Your task to perform on an android device: set the timer Image 0: 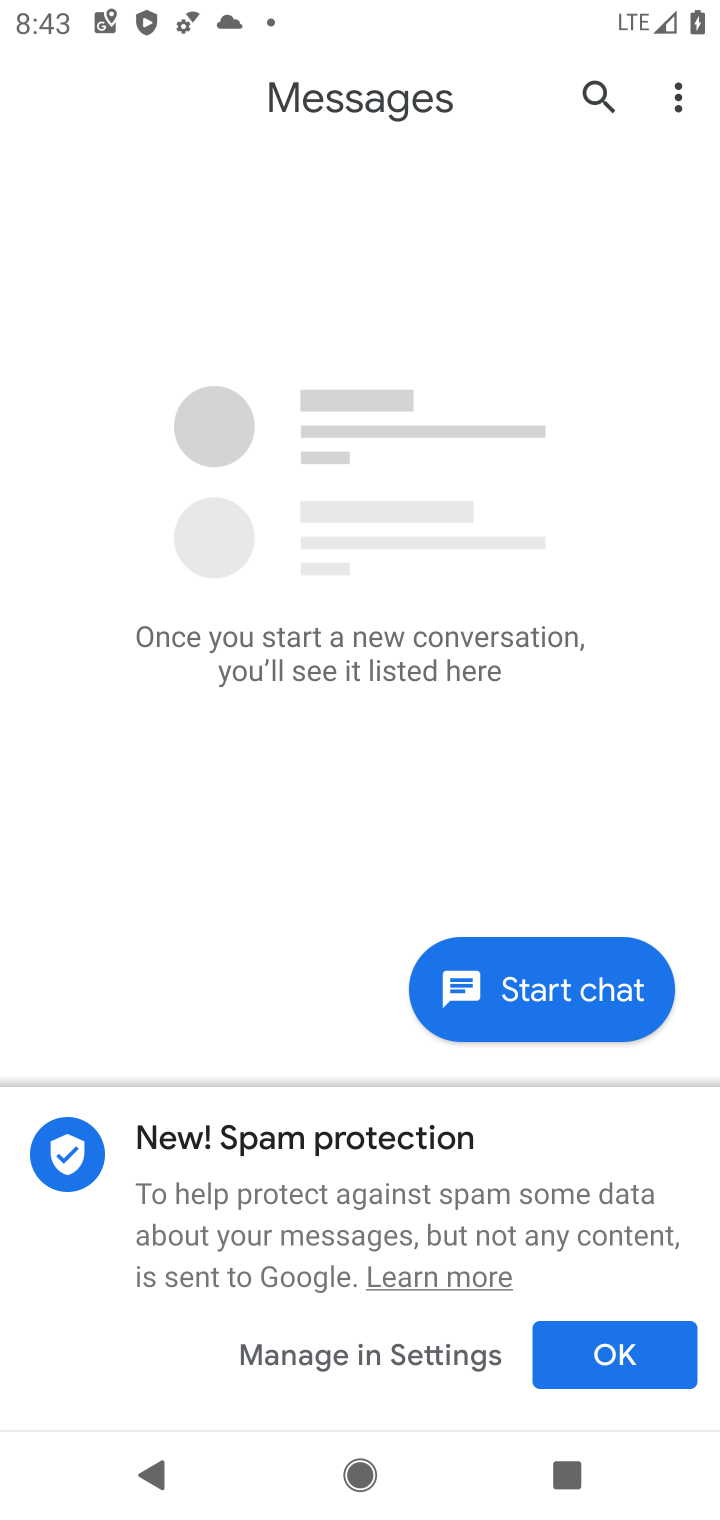
Step 0: press home button
Your task to perform on an android device: set the timer Image 1: 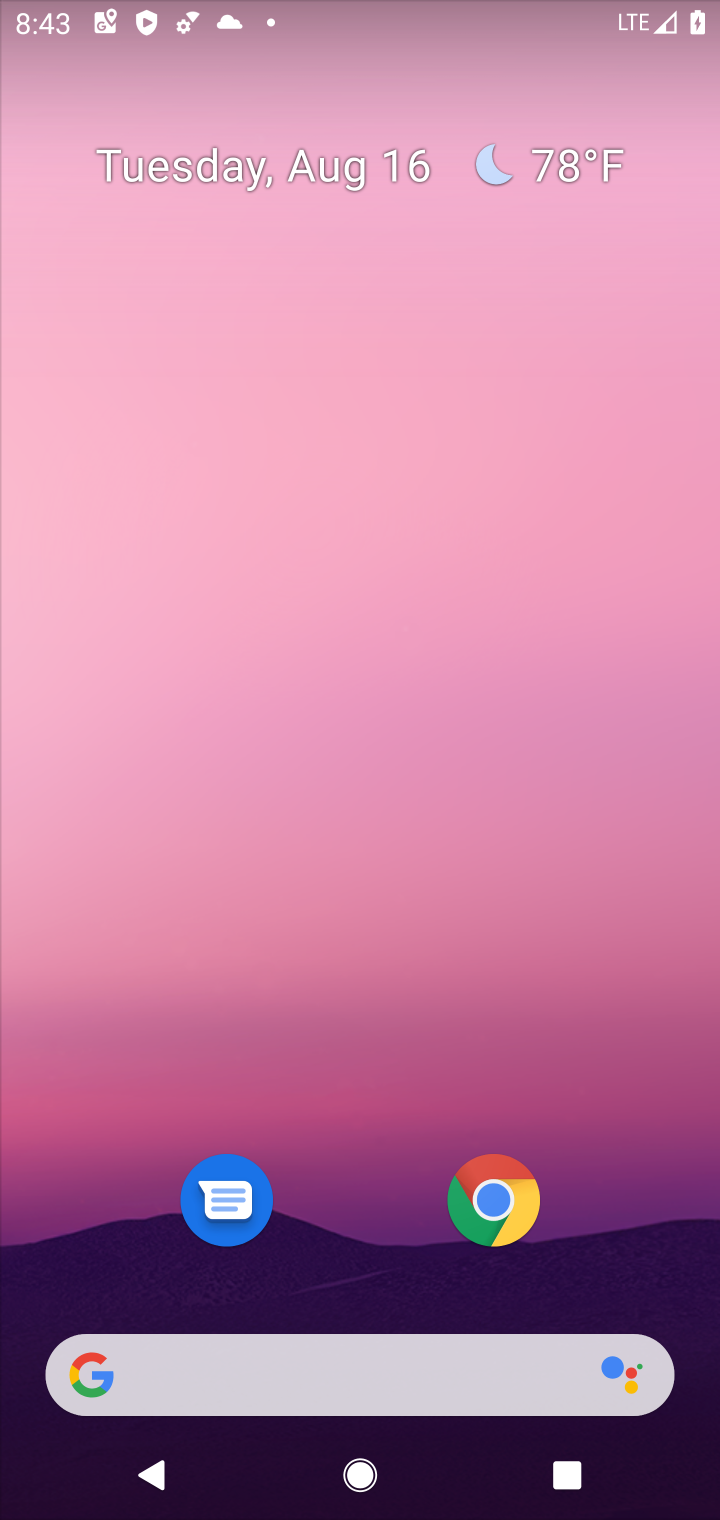
Step 1: drag from (671, 1257) to (562, 468)
Your task to perform on an android device: set the timer Image 2: 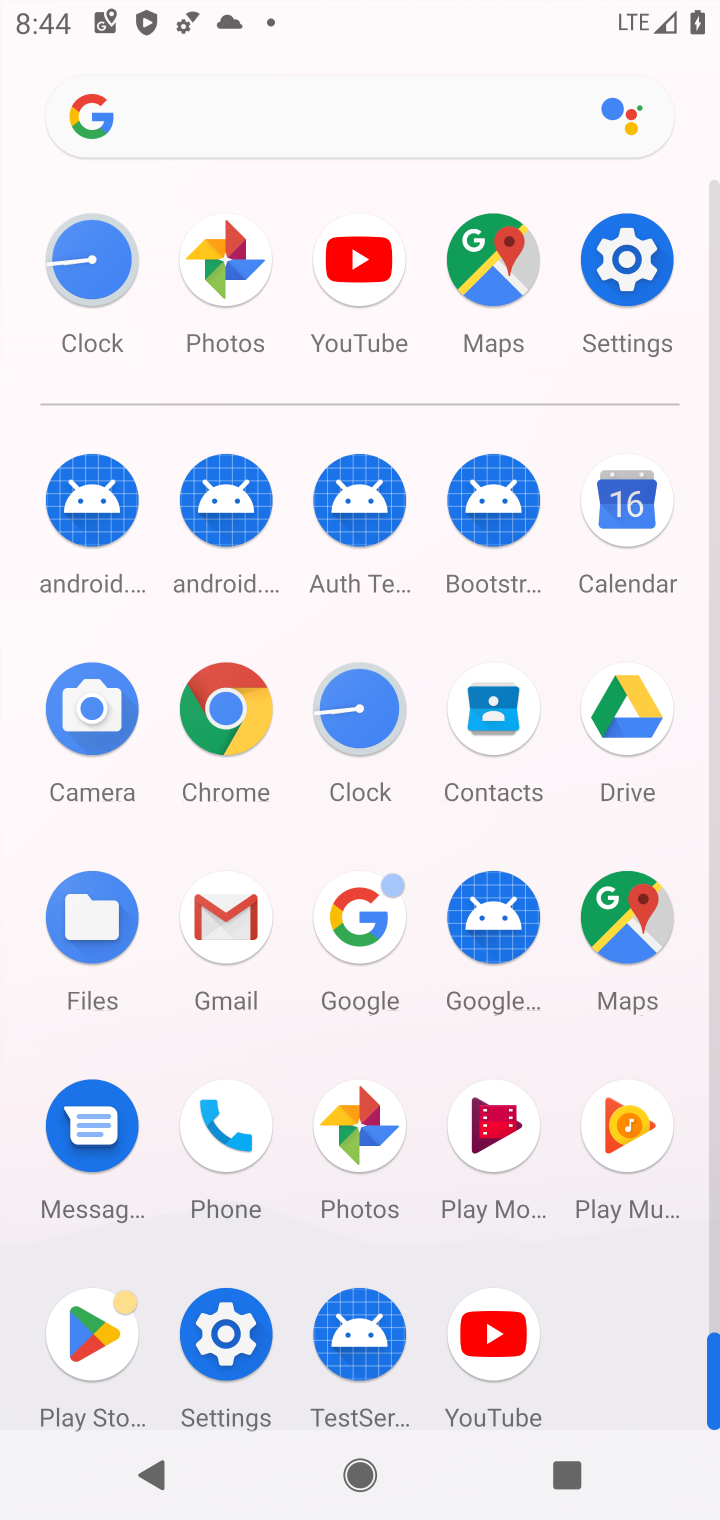
Step 2: click (359, 703)
Your task to perform on an android device: set the timer Image 3: 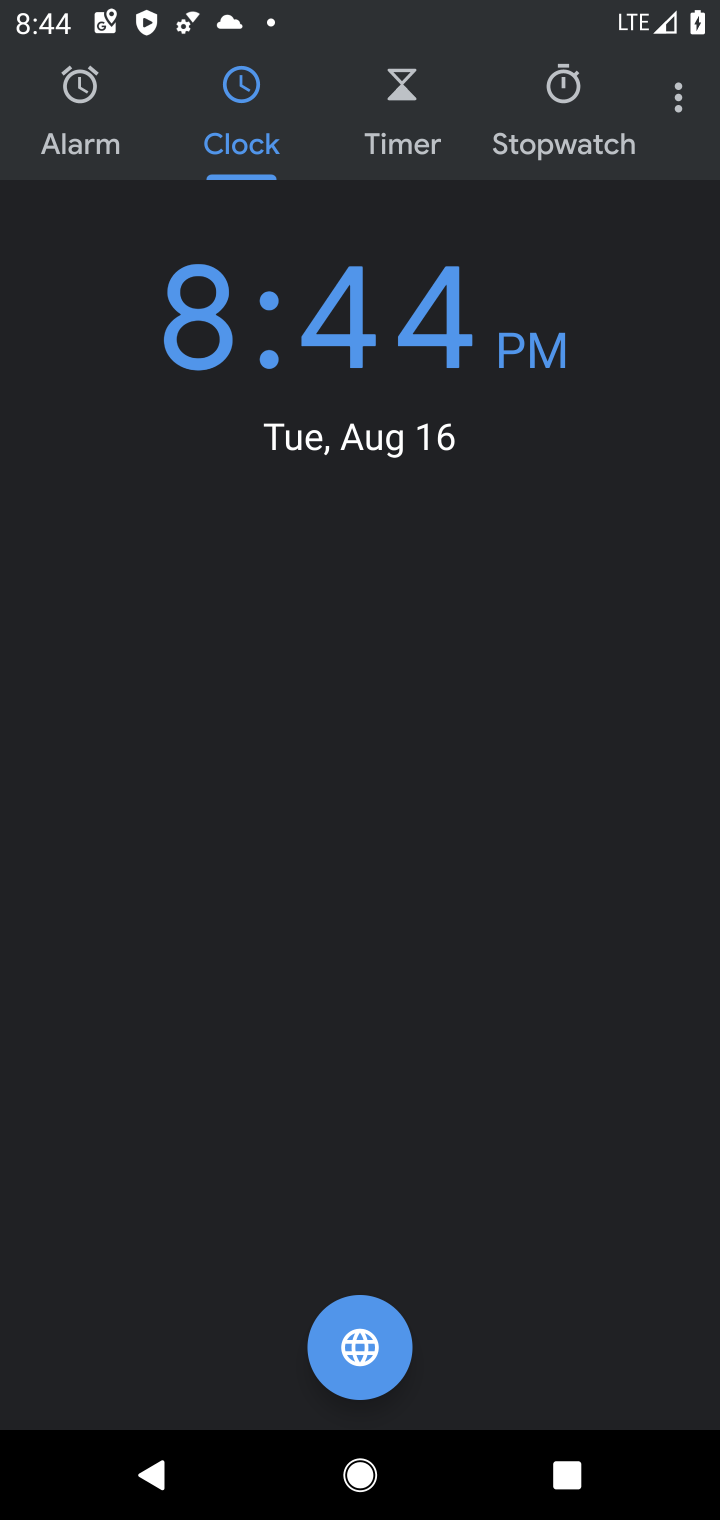
Step 3: click (417, 125)
Your task to perform on an android device: set the timer Image 4: 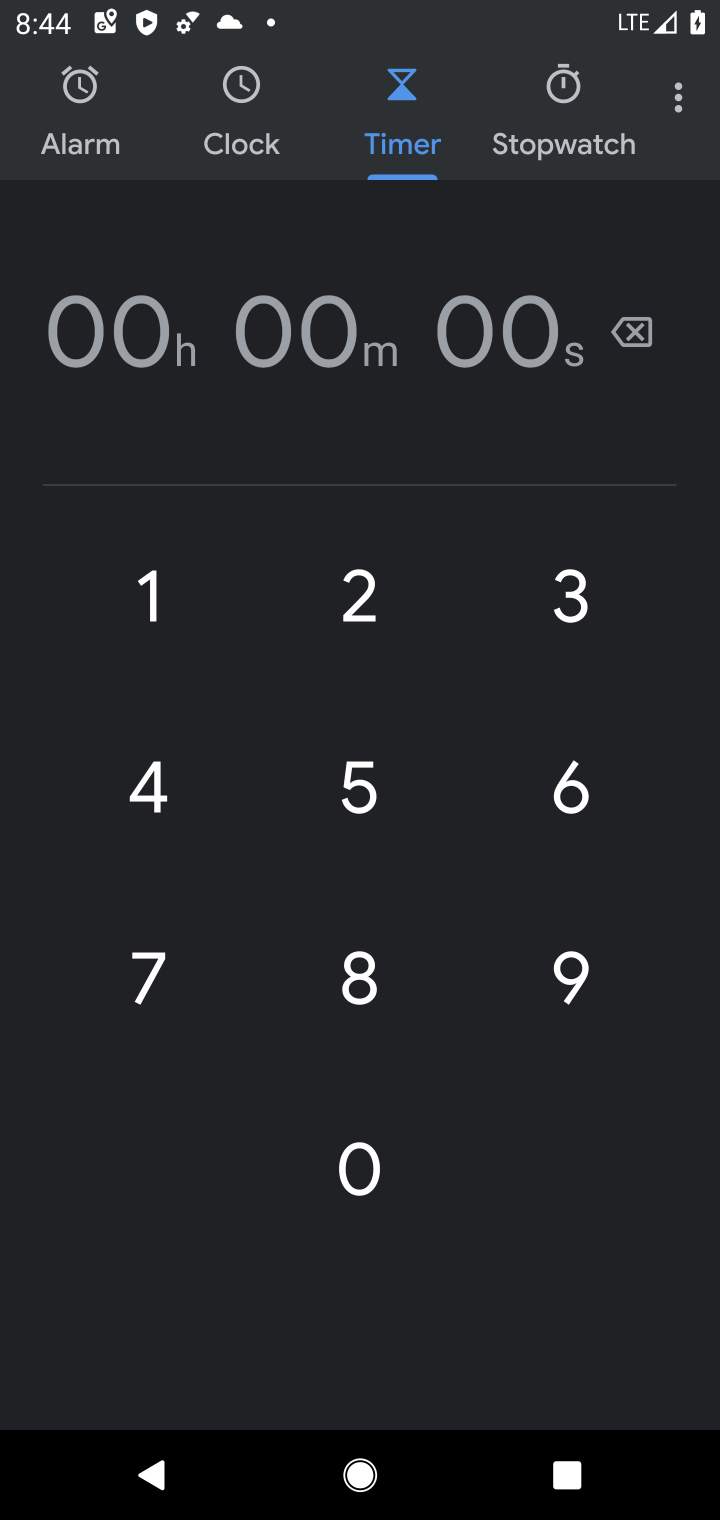
Step 4: click (138, 574)
Your task to perform on an android device: set the timer Image 5: 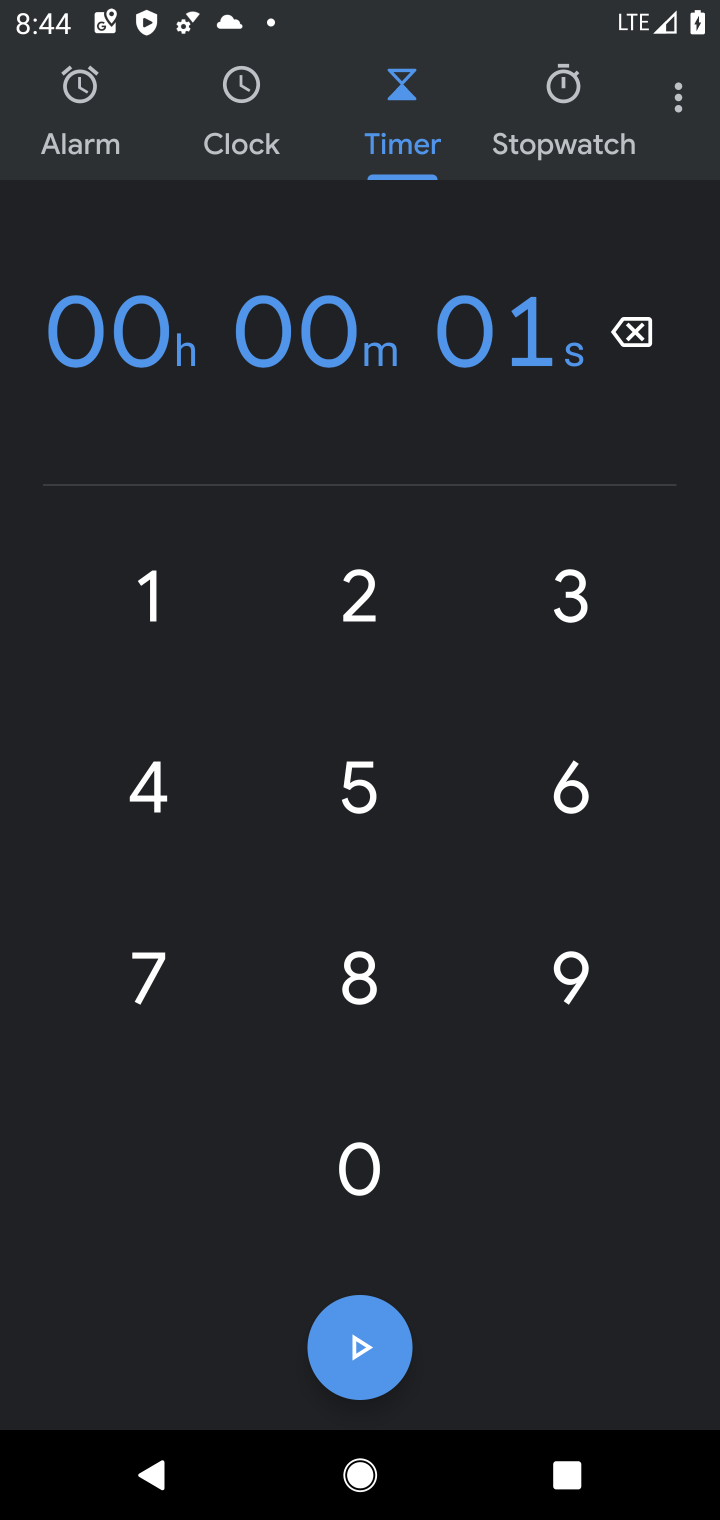
Step 5: click (569, 605)
Your task to perform on an android device: set the timer Image 6: 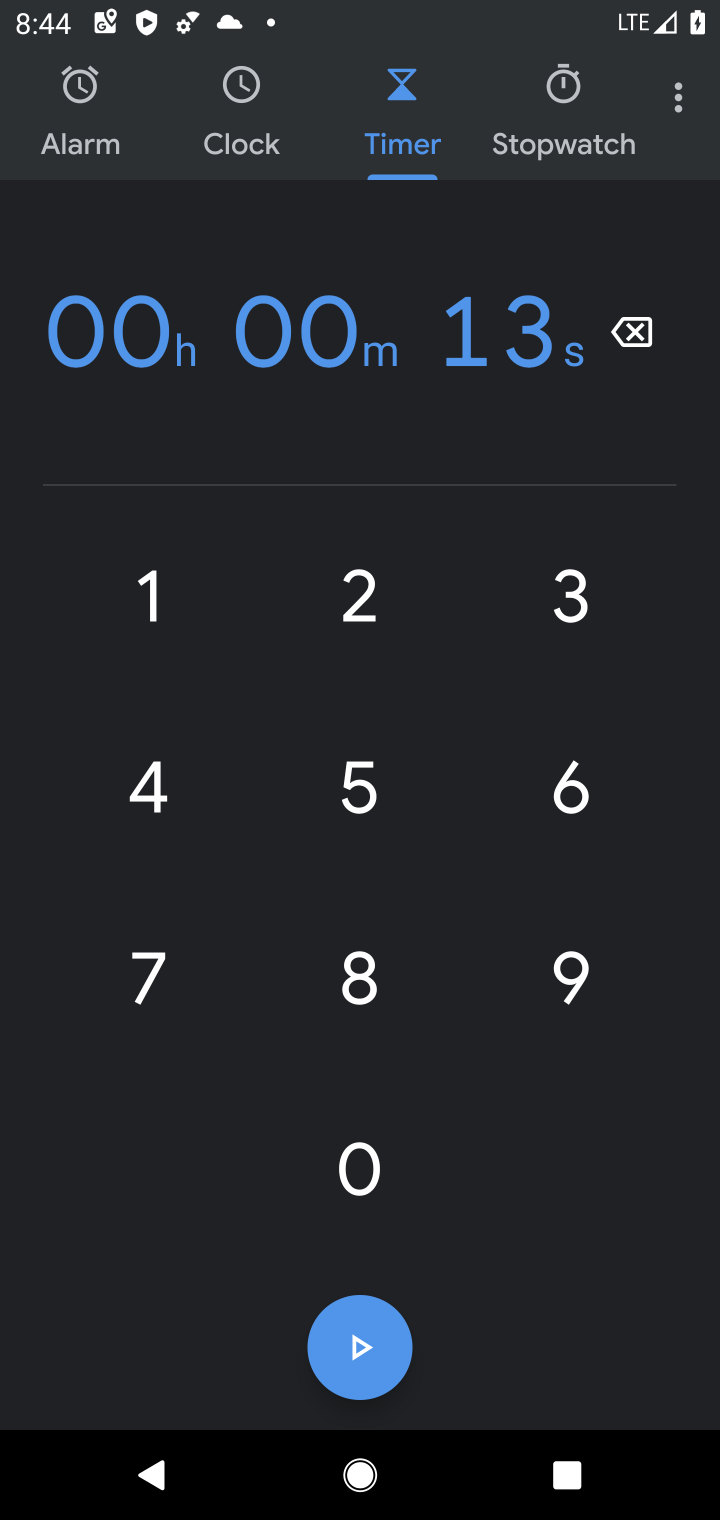
Step 6: click (362, 1158)
Your task to perform on an android device: set the timer Image 7: 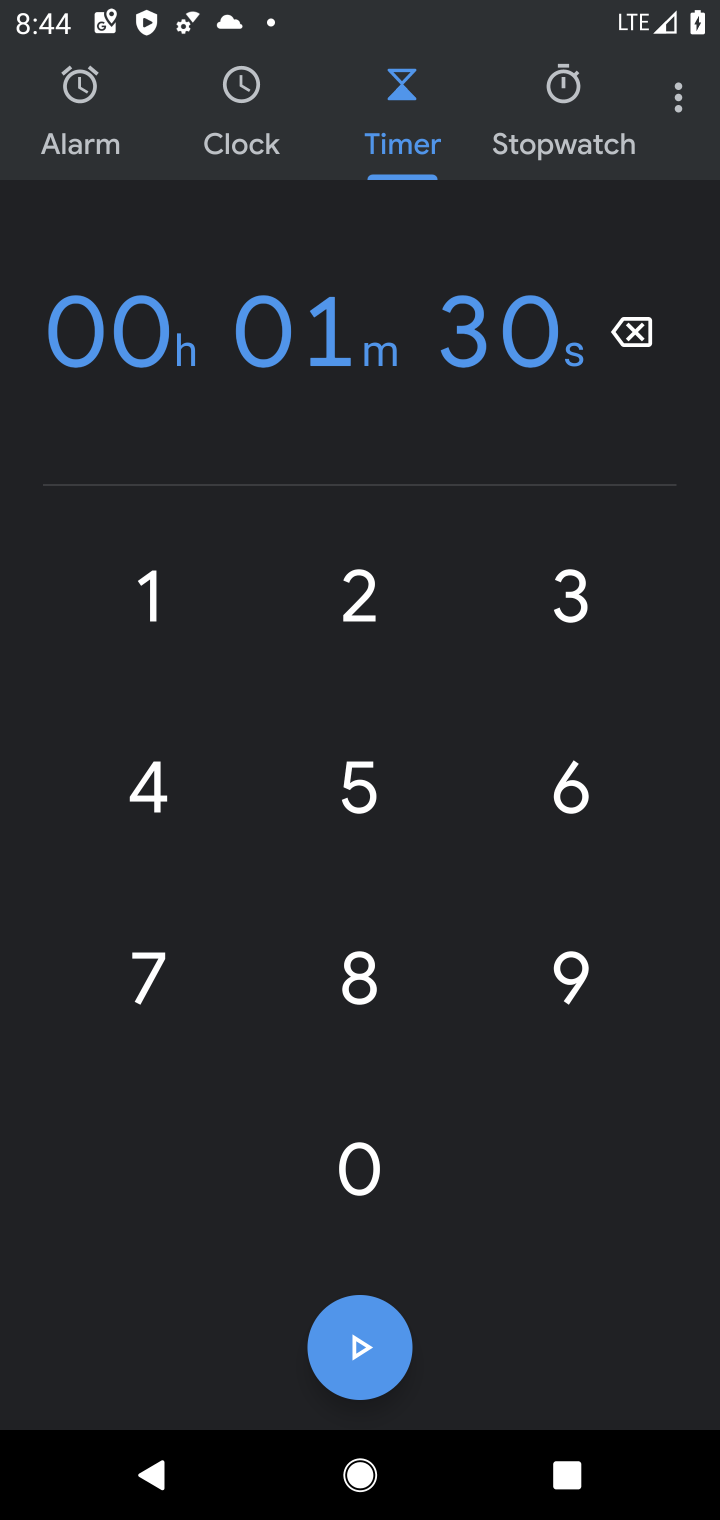
Step 7: click (362, 1158)
Your task to perform on an android device: set the timer Image 8: 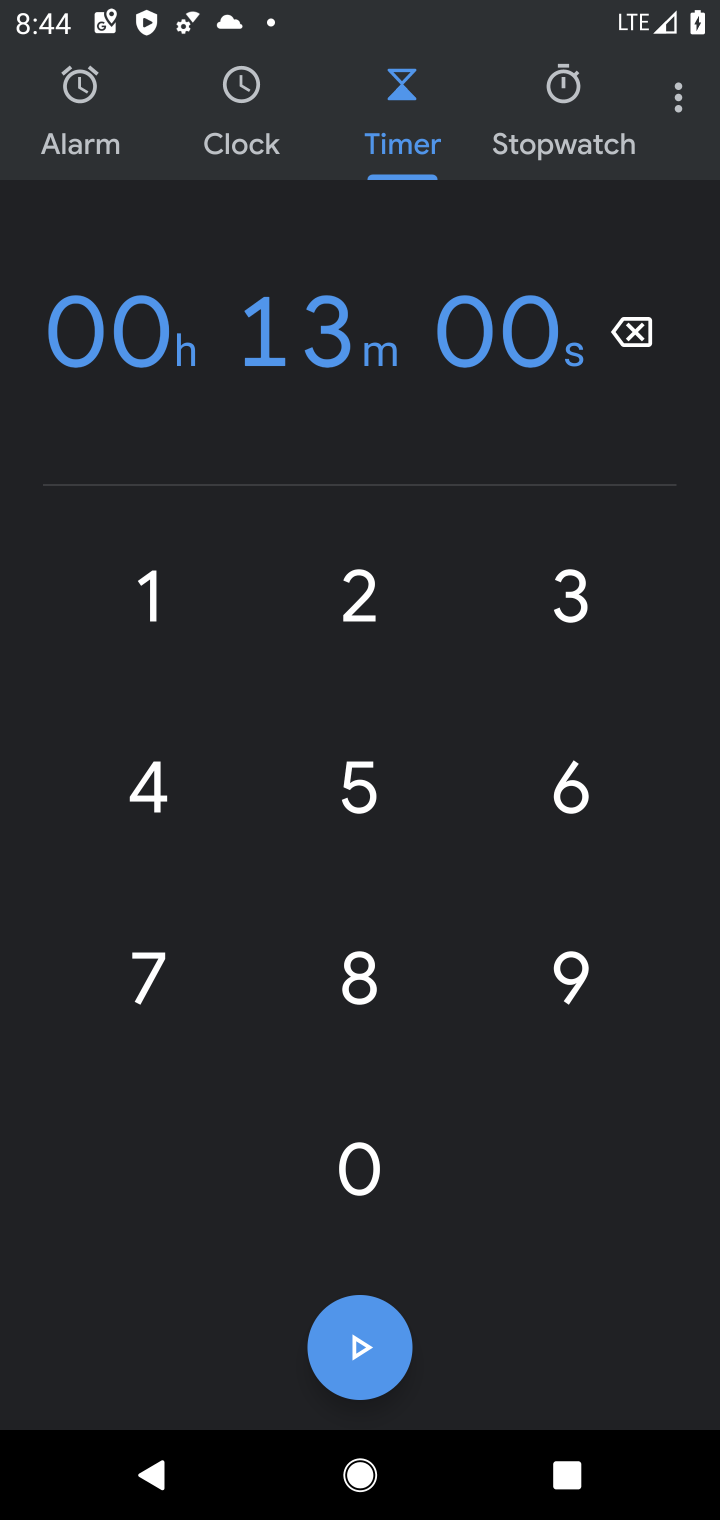
Step 8: click (338, 1145)
Your task to perform on an android device: set the timer Image 9: 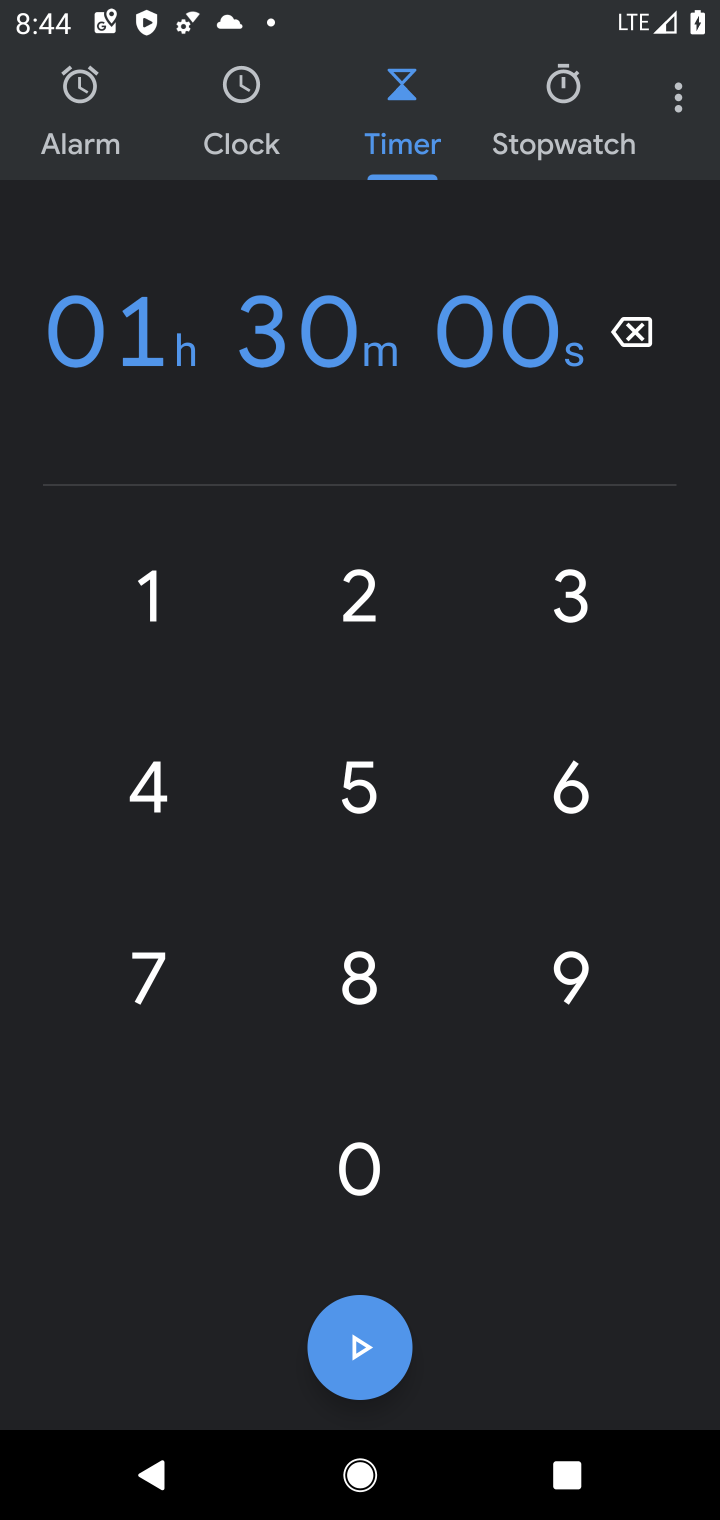
Step 9: task complete